Your task to perform on an android device: Go to Amazon Image 0: 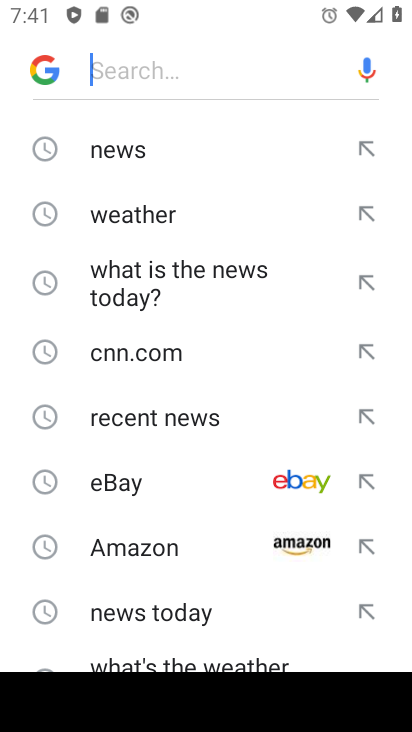
Step 0: press home button
Your task to perform on an android device: Go to Amazon Image 1: 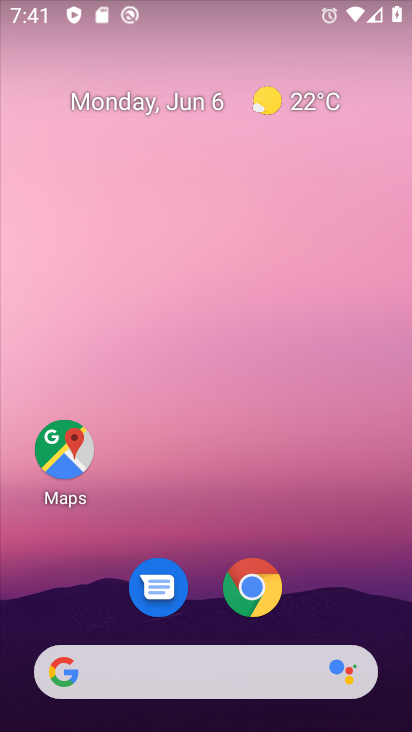
Step 1: click (255, 590)
Your task to perform on an android device: Go to Amazon Image 2: 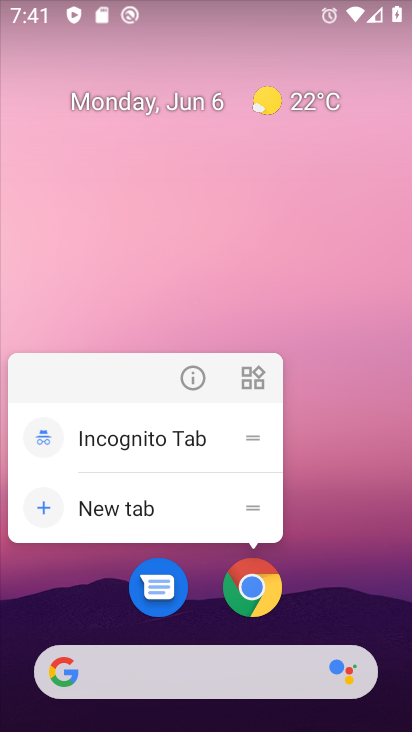
Step 2: click (255, 590)
Your task to perform on an android device: Go to Amazon Image 3: 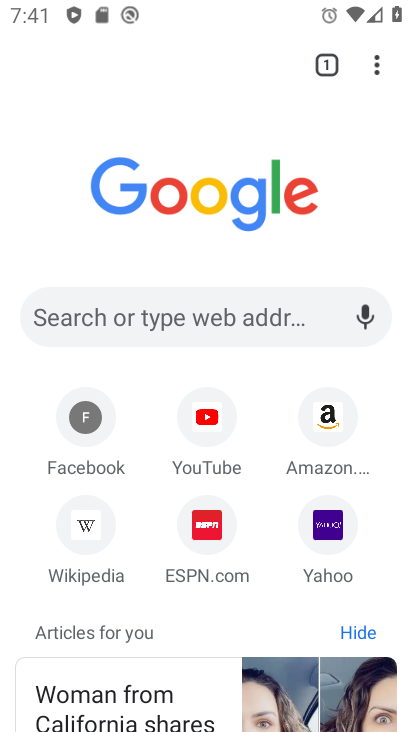
Step 3: click (327, 418)
Your task to perform on an android device: Go to Amazon Image 4: 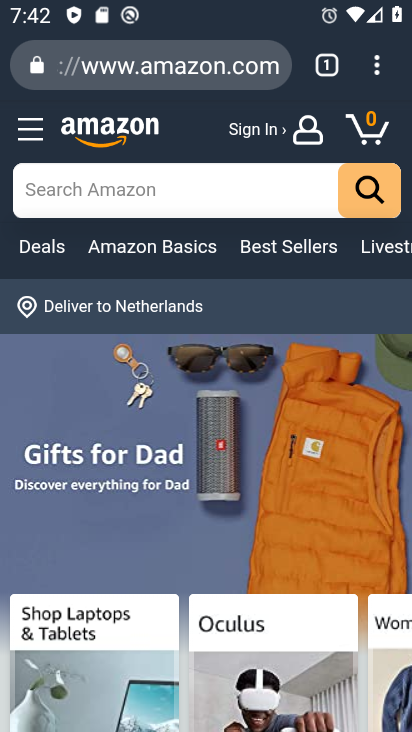
Step 4: task complete